Your task to perform on an android device: Show me the alarms in the clock app Image 0: 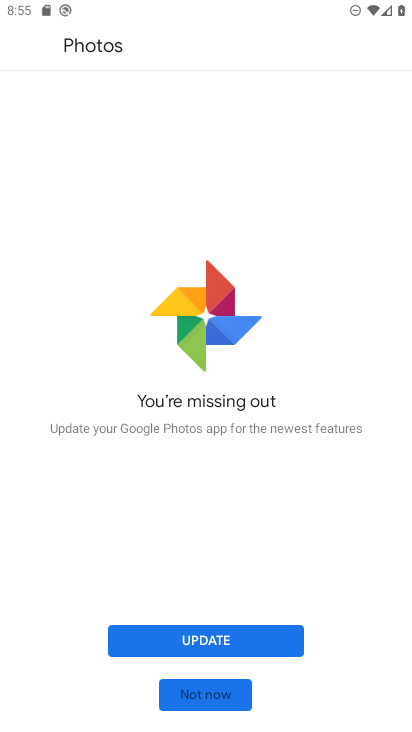
Step 0: press home button
Your task to perform on an android device: Show me the alarms in the clock app Image 1: 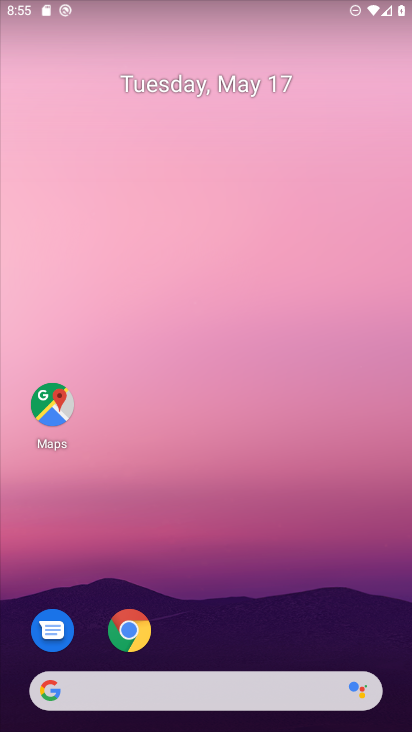
Step 1: drag from (356, 617) to (373, 179)
Your task to perform on an android device: Show me the alarms in the clock app Image 2: 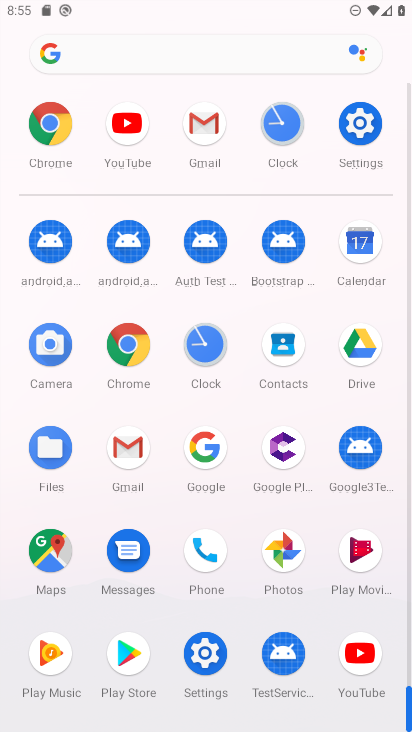
Step 2: click (207, 334)
Your task to perform on an android device: Show me the alarms in the clock app Image 3: 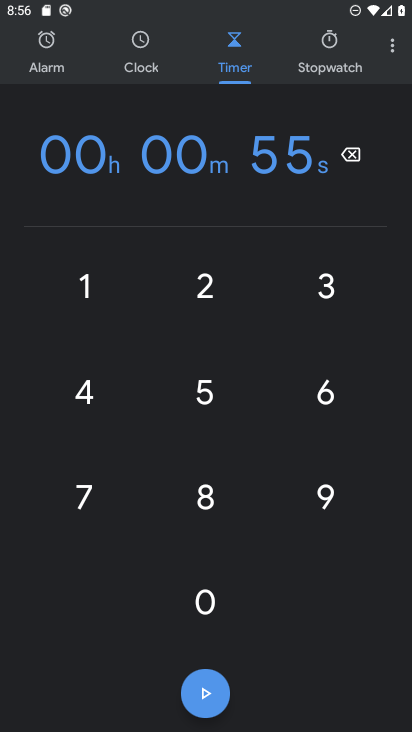
Step 3: click (42, 70)
Your task to perform on an android device: Show me the alarms in the clock app Image 4: 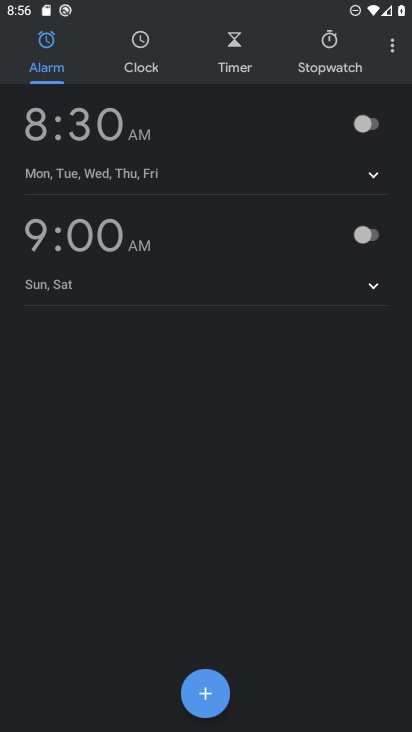
Step 4: task complete